Your task to perform on an android device: turn pop-ups on in chrome Image 0: 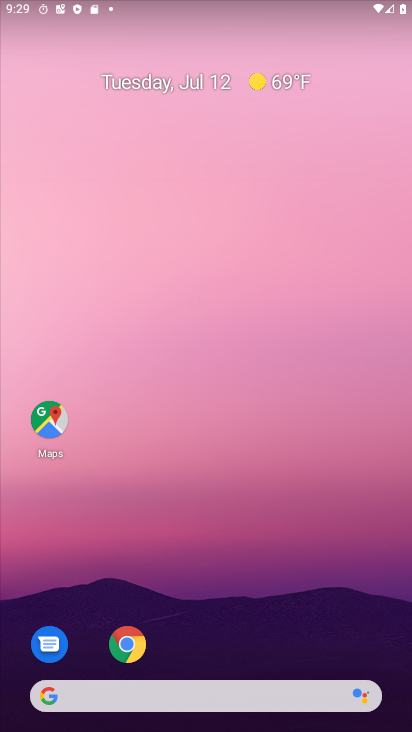
Step 0: click (125, 638)
Your task to perform on an android device: turn pop-ups on in chrome Image 1: 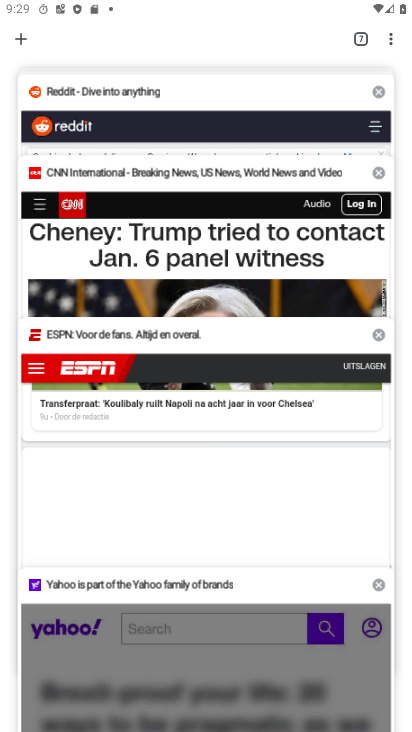
Step 1: click (379, 87)
Your task to perform on an android device: turn pop-ups on in chrome Image 2: 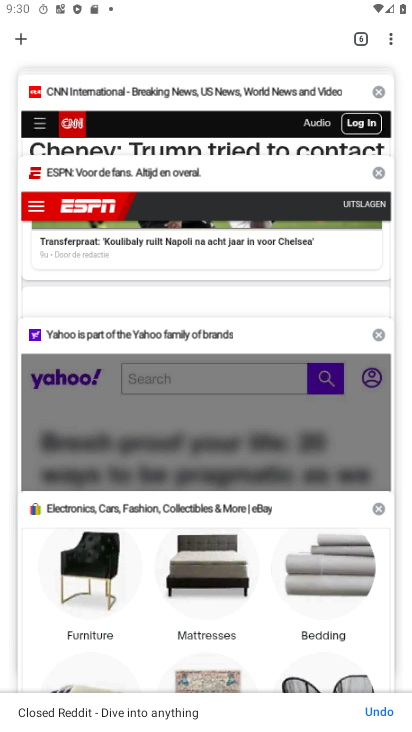
Step 2: click (379, 87)
Your task to perform on an android device: turn pop-ups on in chrome Image 3: 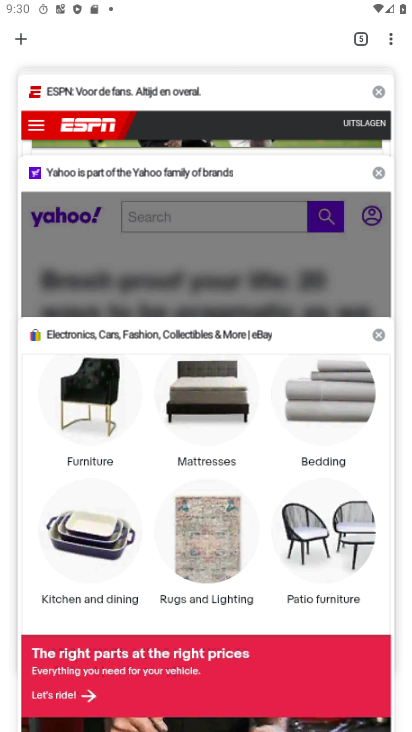
Step 3: click (379, 89)
Your task to perform on an android device: turn pop-ups on in chrome Image 4: 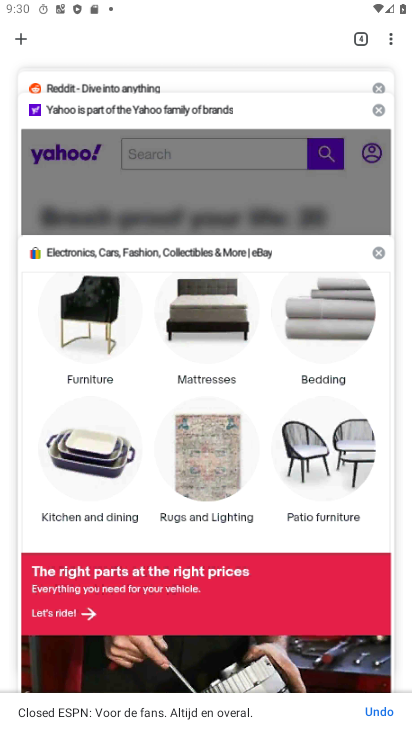
Step 4: click (379, 89)
Your task to perform on an android device: turn pop-ups on in chrome Image 5: 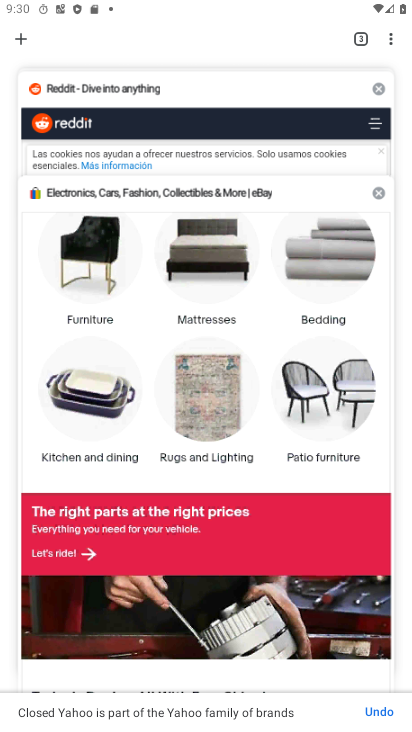
Step 5: click (379, 89)
Your task to perform on an android device: turn pop-ups on in chrome Image 6: 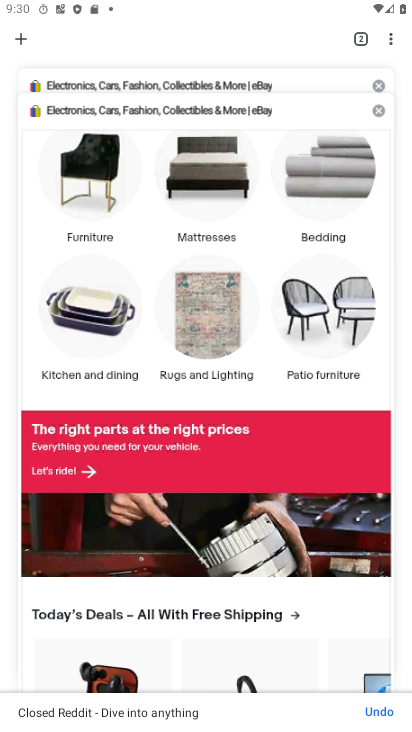
Step 6: click (379, 90)
Your task to perform on an android device: turn pop-ups on in chrome Image 7: 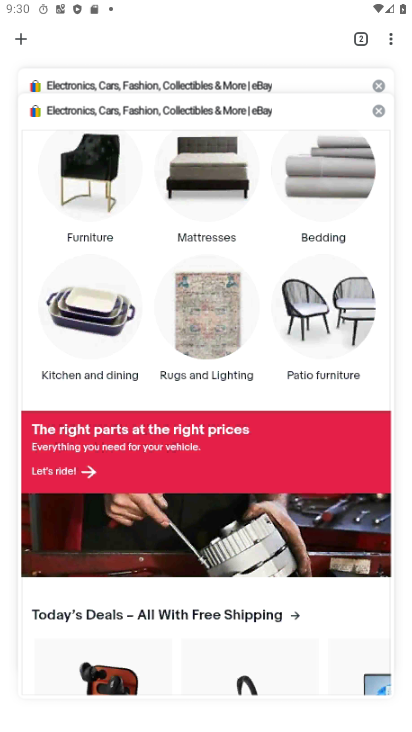
Step 7: click (378, 82)
Your task to perform on an android device: turn pop-ups on in chrome Image 8: 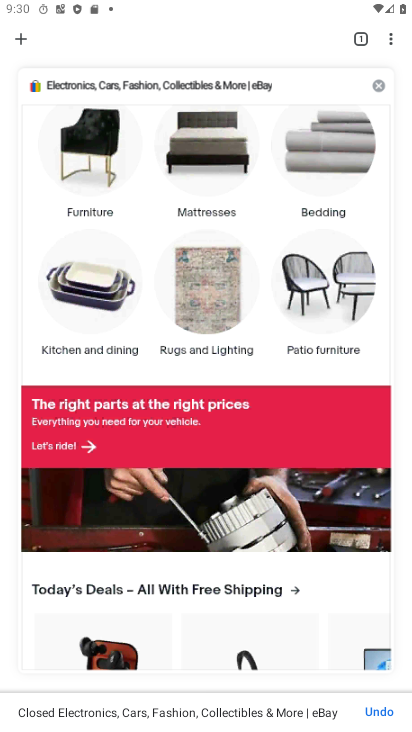
Step 8: click (378, 82)
Your task to perform on an android device: turn pop-ups on in chrome Image 9: 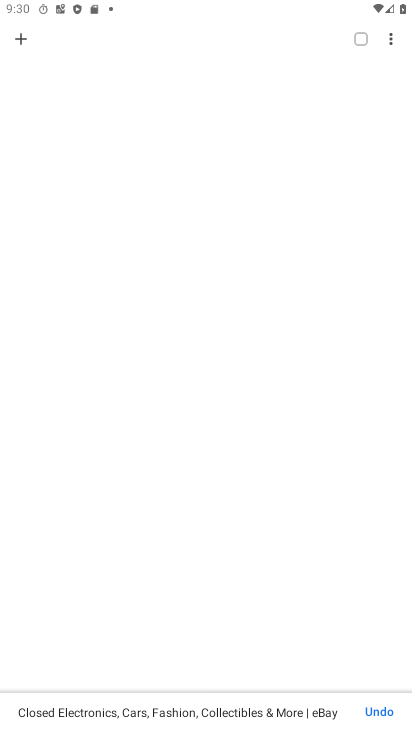
Step 9: click (26, 47)
Your task to perform on an android device: turn pop-ups on in chrome Image 10: 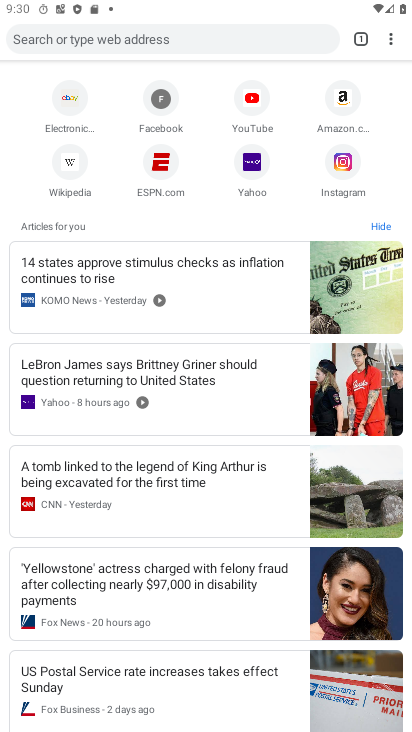
Step 10: click (390, 39)
Your task to perform on an android device: turn pop-ups on in chrome Image 11: 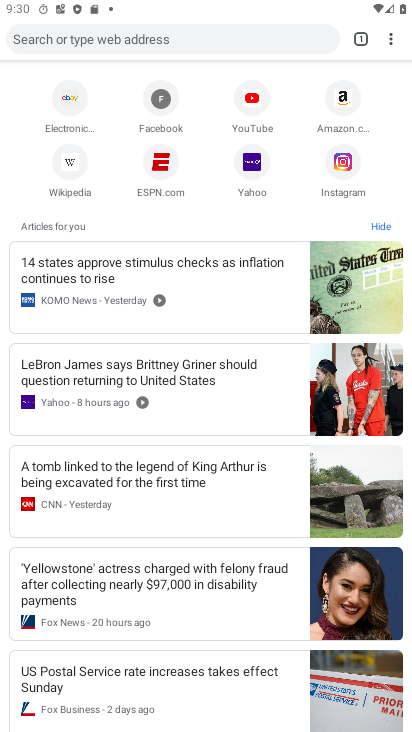
Step 11: click (391, 37)
Your task to perform on an android device: turn pop-ups on in chrome Image 12: 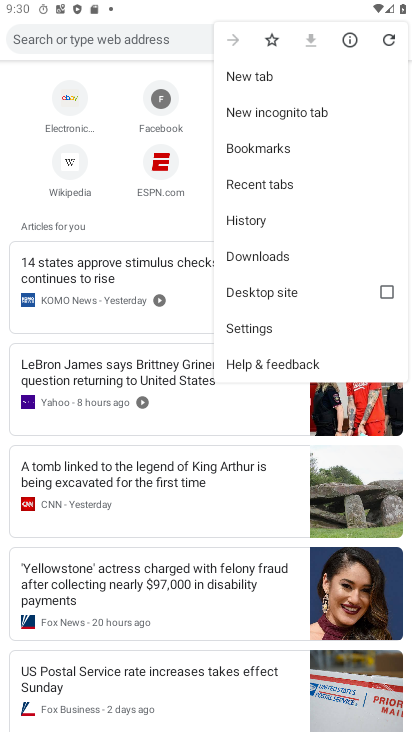
Step 12: click (278, 323)
Your task to perform on an android device: turn pop-ups on in chrome Image 13: 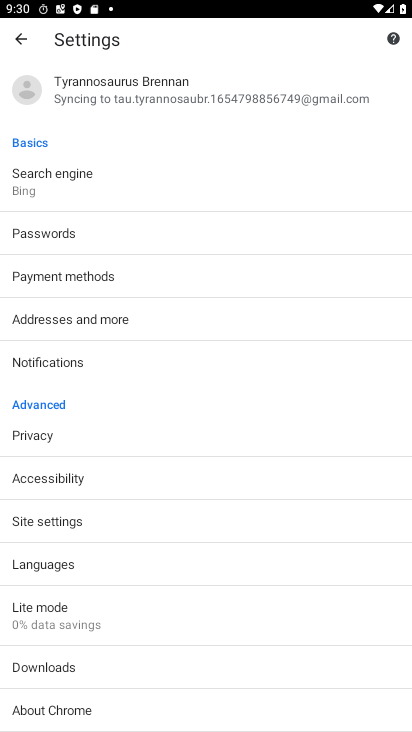
Step 13: click (94, 520)
Your task to perform on an android device: turn pop-ups on in chrome Image 14: 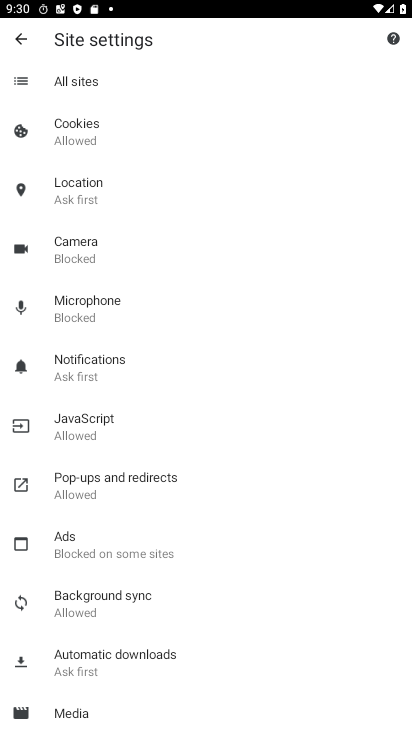
Step 14: click (137, 487)
Your task to perform on an android device: turn pop-ups on in chrome Image 15: 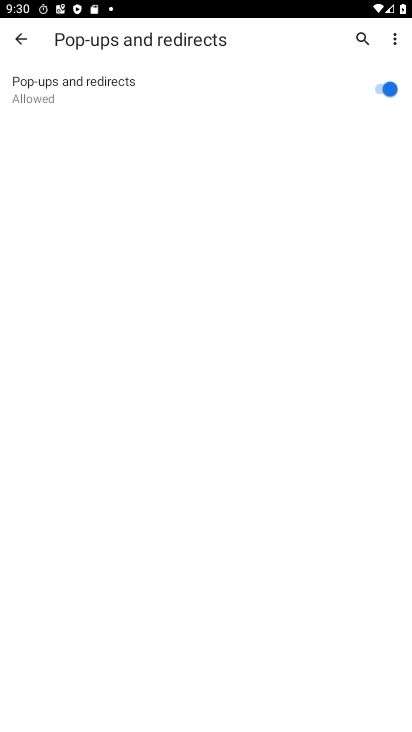
Step 15: task complete